Your task to perform on an android device: turn on showing notifications on the lock screen Image 0: 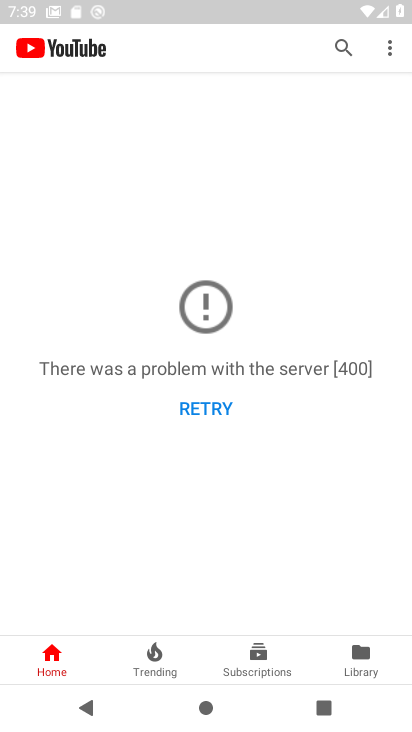
Step 0: press home button
Your task to perform on an android device: turn on showing notifications on the lock screen Image 1: 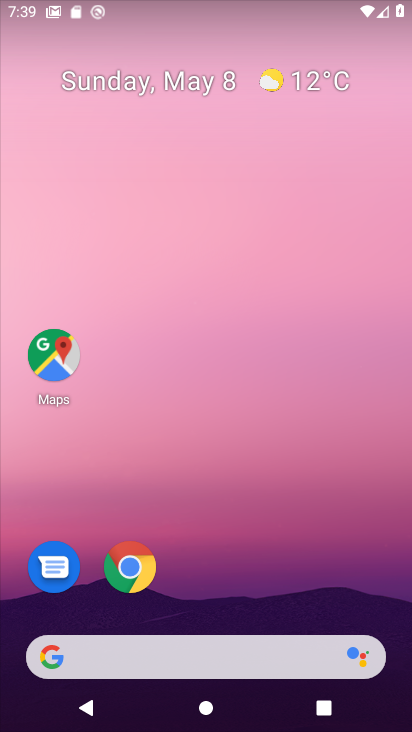
Step 1: drag from (198, 542) to (361, 50)
Your task to perform on an android device: turn on showing notifications on the lock screen Image 2: 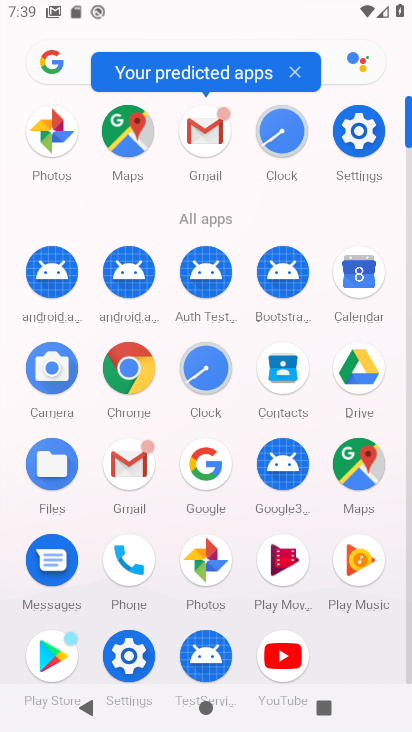
Step 2: click (347, 123)
Your task to perform on an android device: turn on showing notifications on the lock screen Image 3: 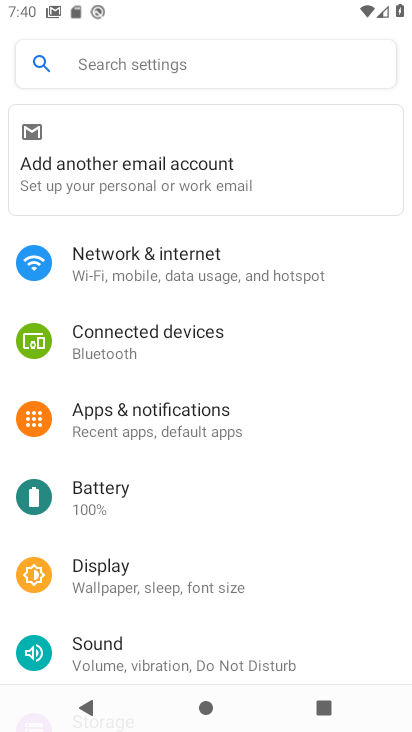
Step 3: click (180, 417)
Your task to perform on an android device: turn on showing notifications on the lock screen Image 4: 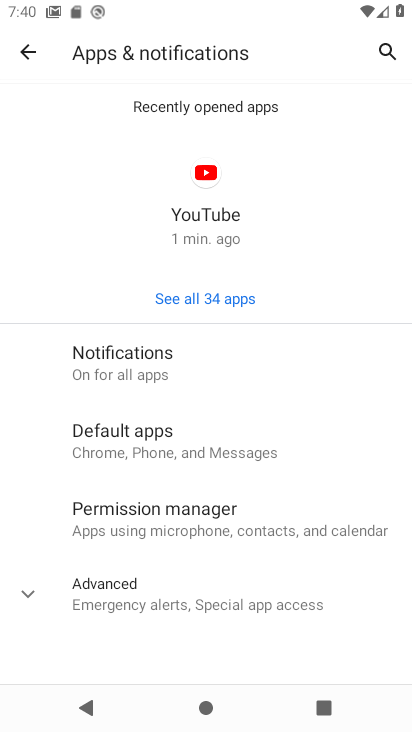
Step 4: click (146, 370)
Your task to perform on an android device: turn on showing notifications on the lock screen Image 5: 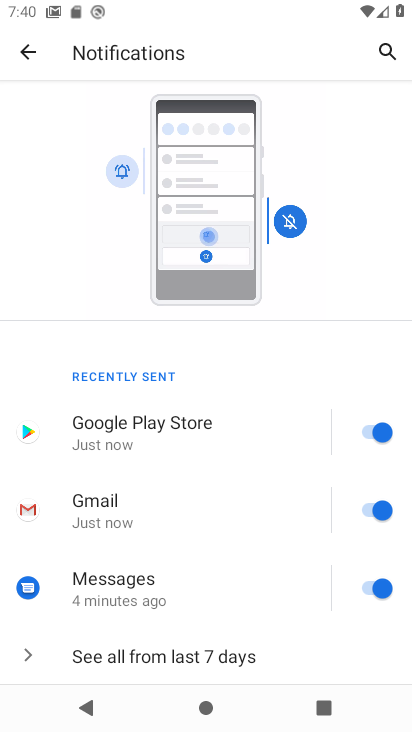
Step 5: drag from (194, 551) to (238, 177)
Your task to perform on an android device: turn on showing notifications on the lock screen Image 6: 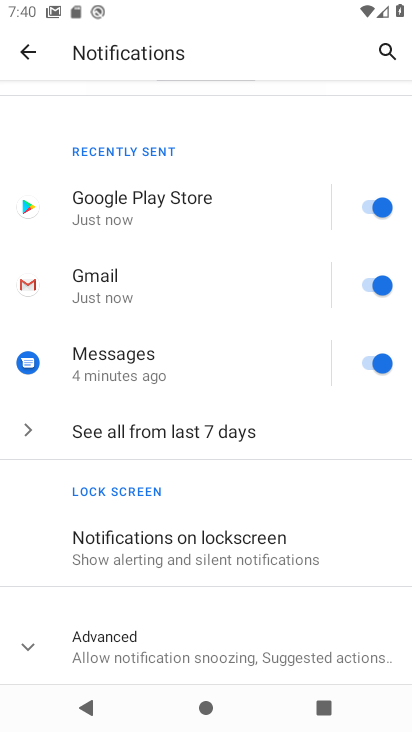
Step 6: click (219, 554)
Your task to perform on an android device: turn on showing notifications on the lock screen Image 7: 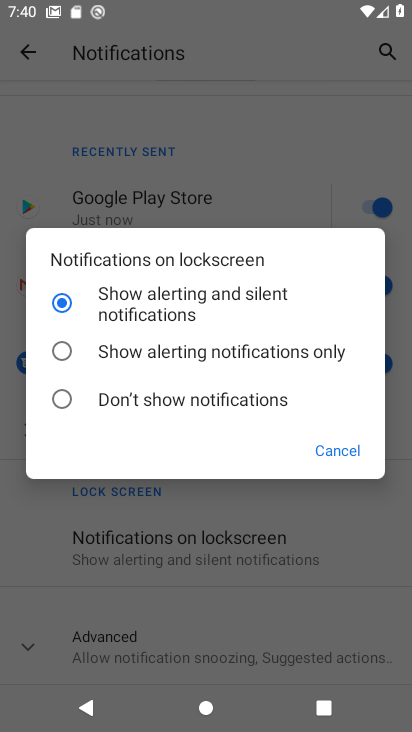
Step 7: task complete